Your task to perform on an android device: Turn on the flashlight Image 0: 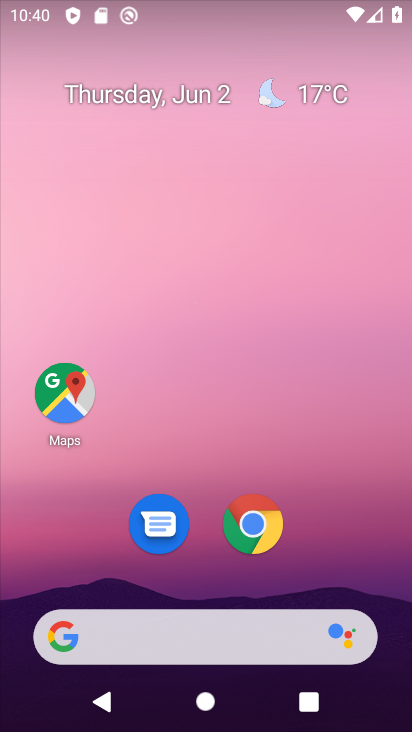
Step 0: drag from (329, 529) to (340, 0)
Your task to perform on an android device: Turn on the flashlight Image 1: 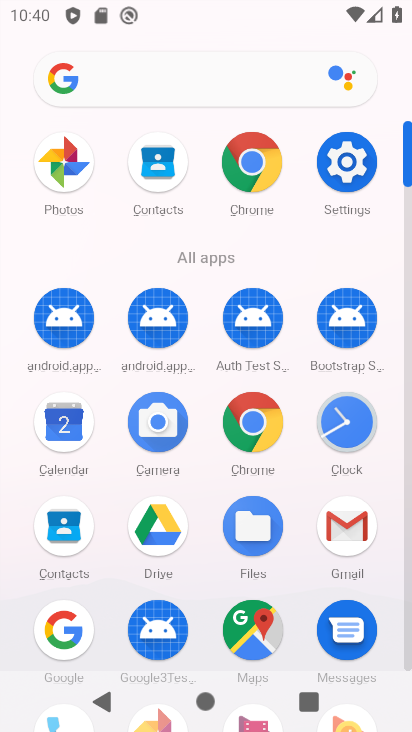
Step 1: press home button
Your task to perform on an android device: Turn on the flashlight Image 2: 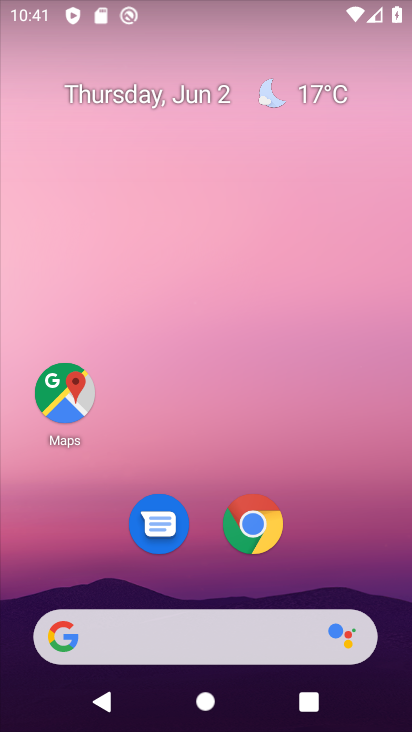
Step 2: click (278, 646)
Your task to perform on an android device: Turn on the flashlight Image 3: 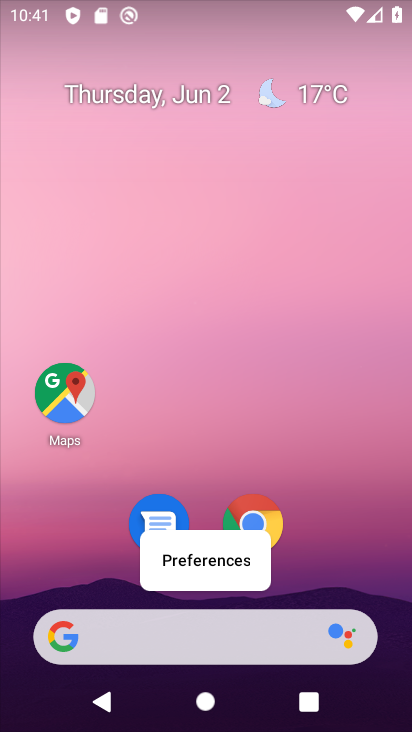
Step 3: drag from (336, 490) to (370, 27)
Your task to perform on an android device: Turn on the flashlight Image 4: 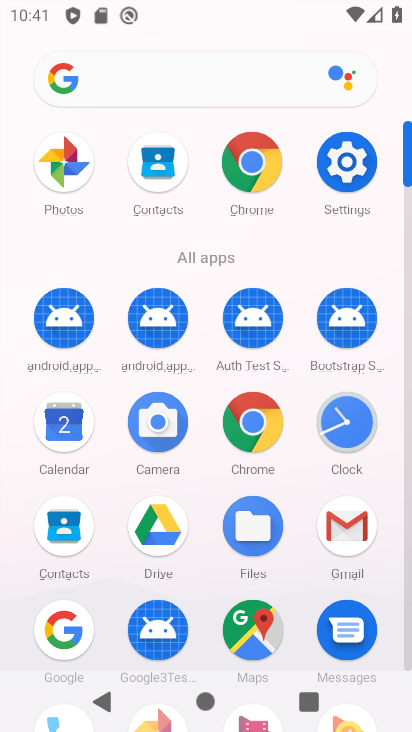
Step 4: click (342, 167)
Your task to perform on an android device: Turn on the flashlight Image 5: 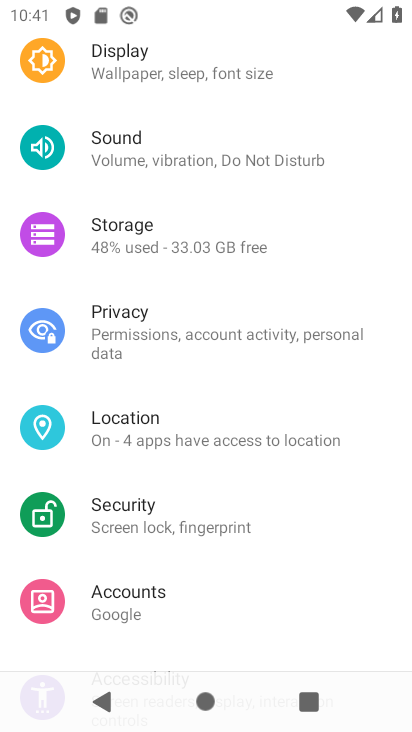
Step 5: drag from (229, 118) to (254, 667)
Your task to perform on an android device: Turn on the flashlight Image 6: 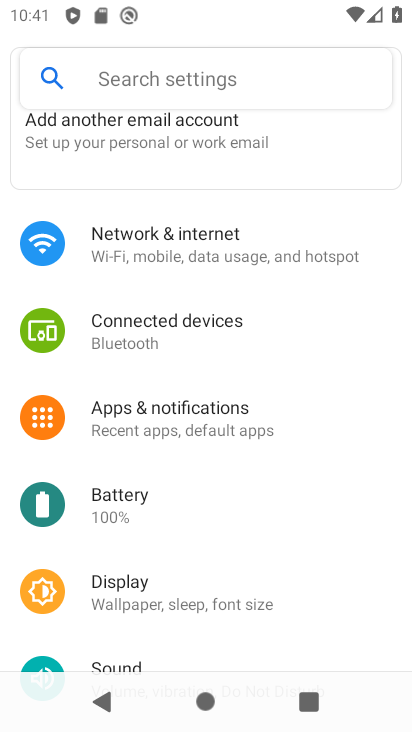
Step 6: click (223, 77)
Your task to perform on an android device: Turn on the flashlight Image 7: 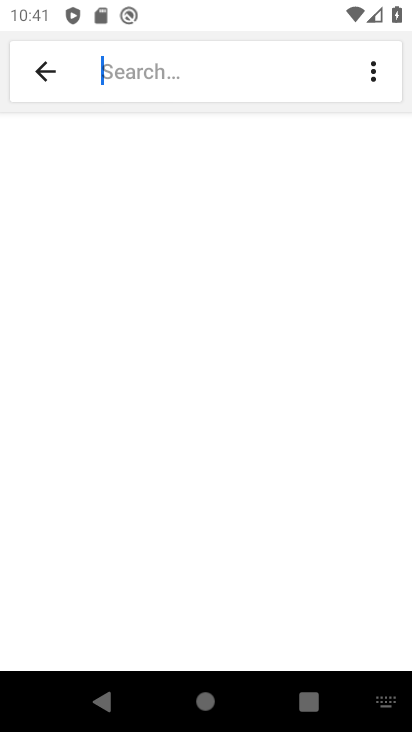
Step 7: type "Flashlight"
Your task to perform on an android device: Turn on the flashlight Image 8: 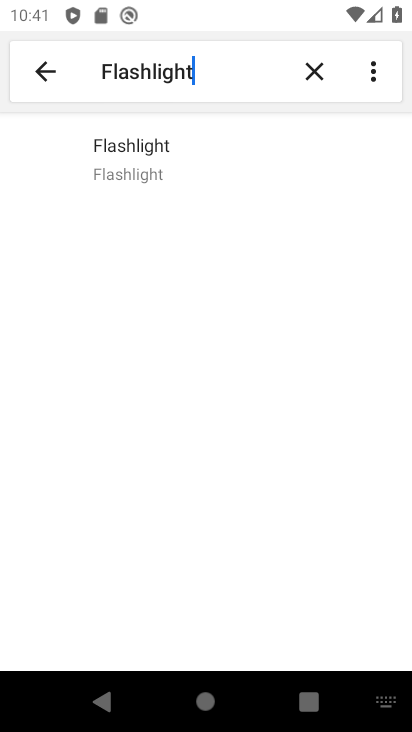
Step 8: click (150, 161)
Your task to perform on an android device: Turn on the flashlight Image 9: 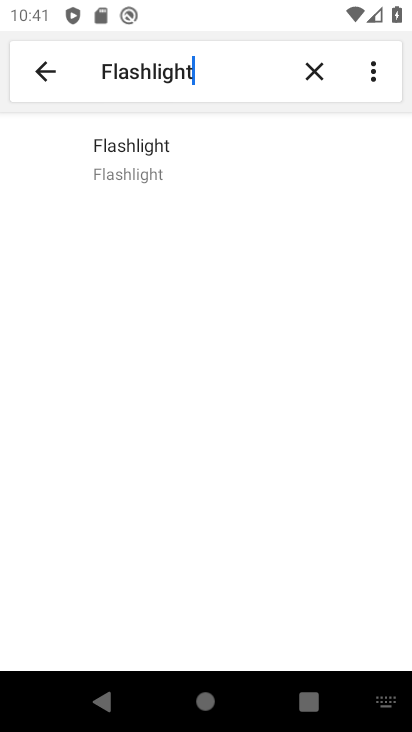
Step 9: task complete